Your task to perform on an android device: Open Wikipedia Image 0: 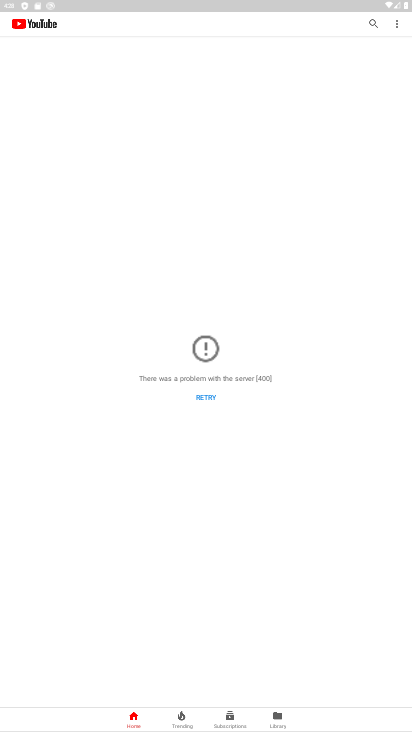
Step 0: press home button
Your task to perform on an android device: Open Wikipedia Image 1: 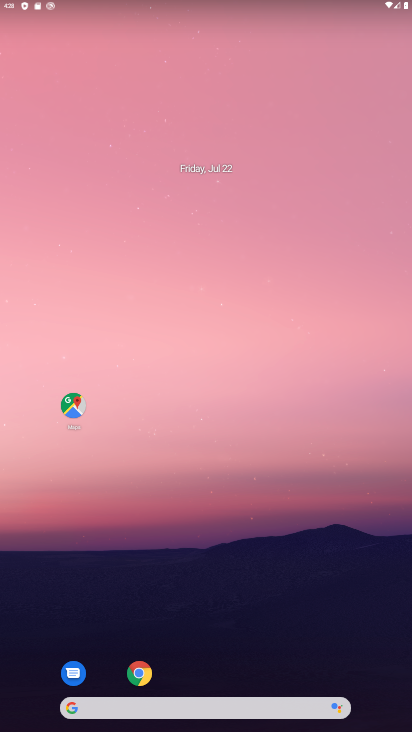
Step 1: click (65, 710)
Your task to perform on an android device: Open Wikipedia Image 2: 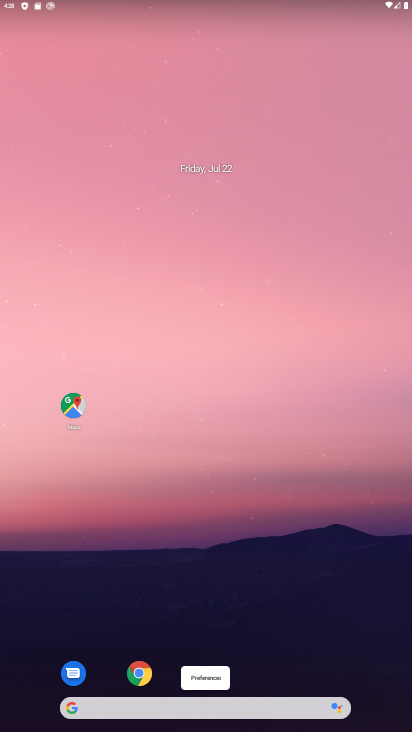
Step 2: click (67, 709)
Your task to perform on an android device: Open Wikipedia Image 3: 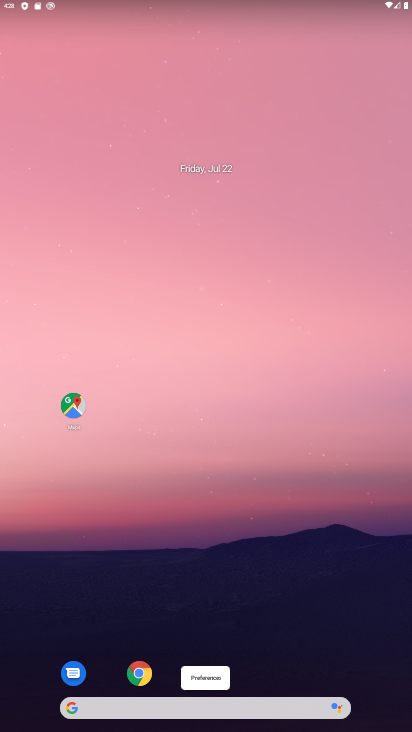
Step 3: click (74, 711)
Your task to perform on an android device: Open Wikipedia Image 4: 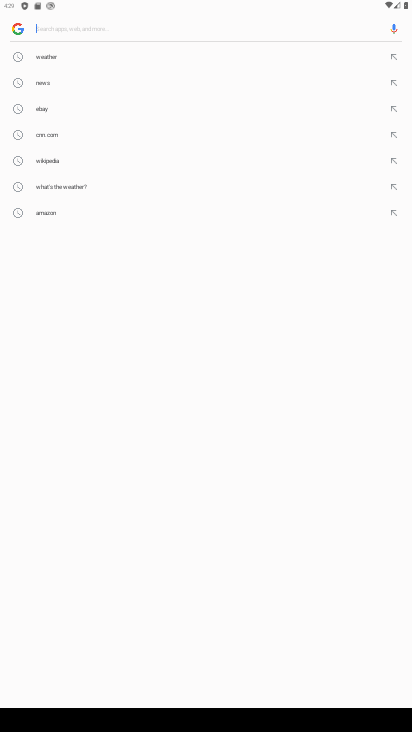
Step 4: type "Wikipedia"
Your task to perform on an android device: Open Wikipedia Image 5: 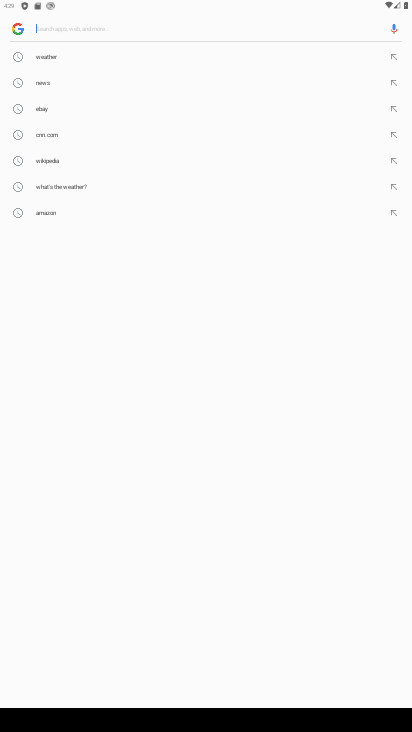
Step 5: click (50, 28)
Your task to perform on an android device: Open Wikipedia Image 6: 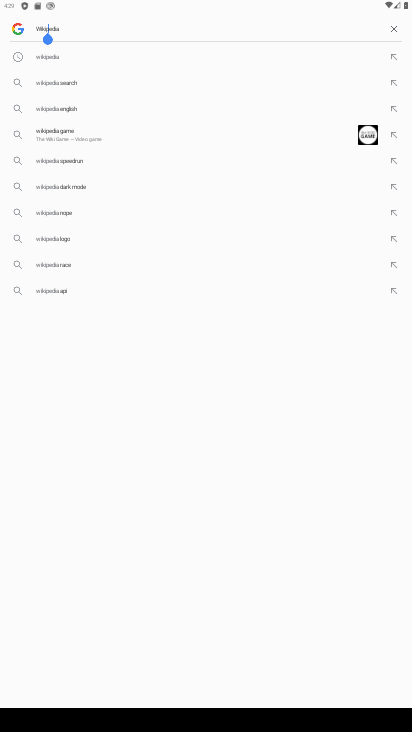
Step 6: click (41, 56)
Your task to perform on an android device: Open Wikipedia Image 7: 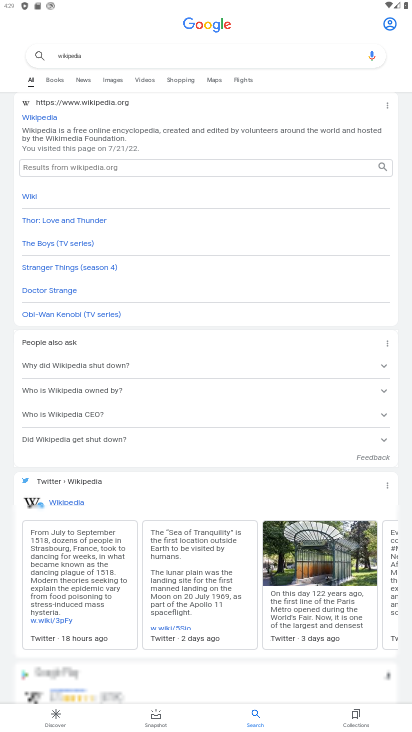
Step 7: click (38, 116)
Your task to perform on an android device: Open Wikipedia Image 8: 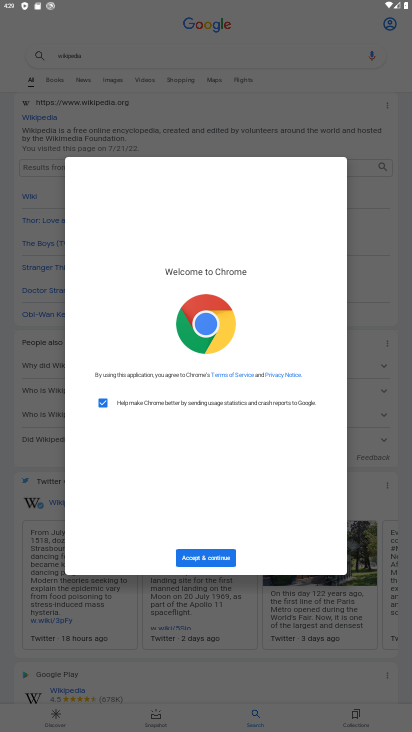
Step 8: click (190, 555)
Your task to perform on an android device: Open Wikipedia Image 9: 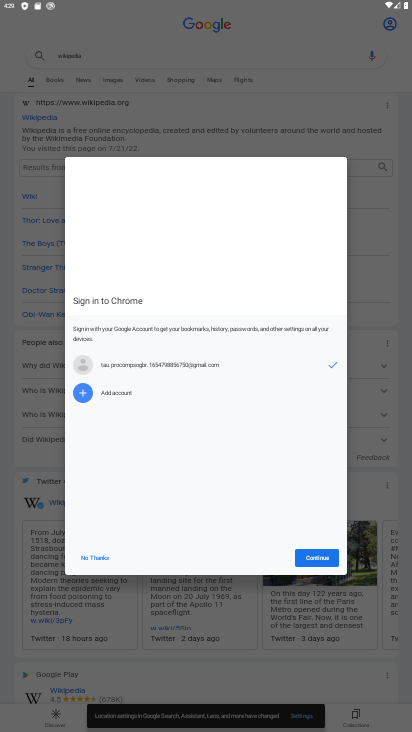
Step 9: click (324, 555)
Your task to perform on an android device: Open Wikipedia Image 10: 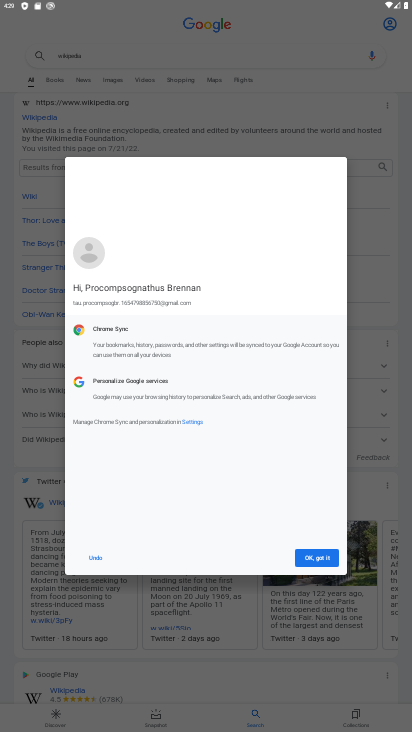
Step 10: click (322, 558)
Your task to perform on an android device: Open Wikipedia Image 11: 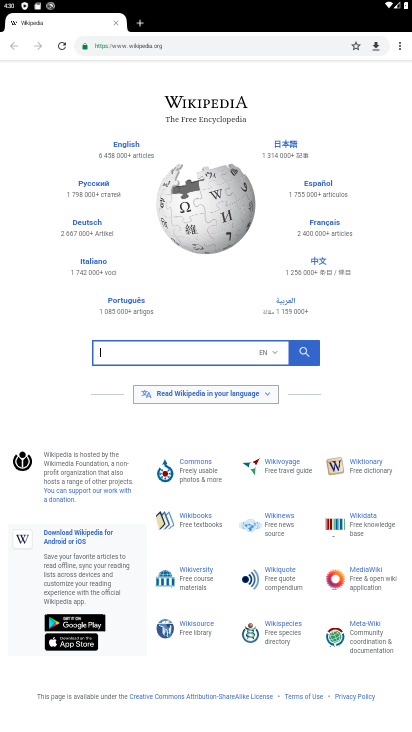
Step 11: task complete